Your task to perform on an android device: Go to ESPN.com Image 0: 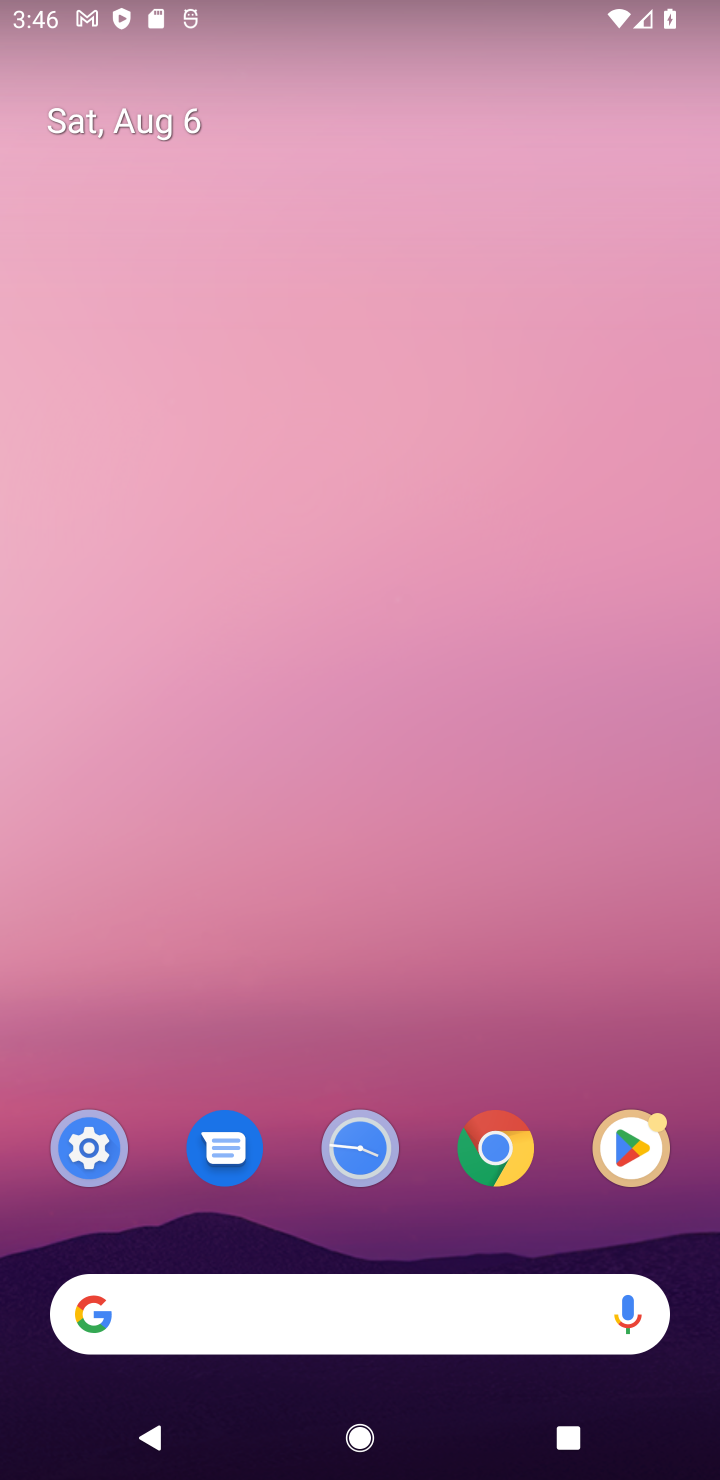
Step 0: drag from (301, 1218) to (512, 229)
Your task to perform on an android device: Go to ESPN.com Image 1: 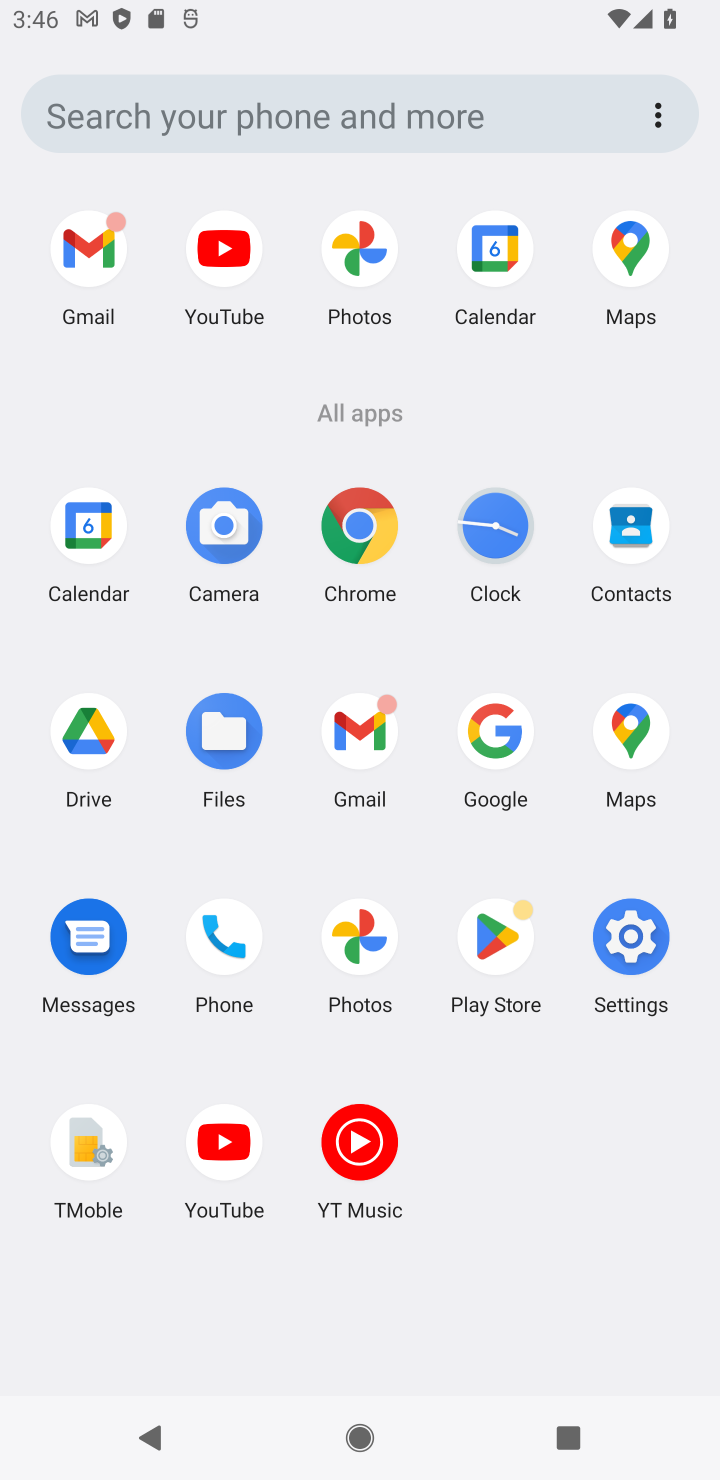
Step 1: click (352, 507)
Your task to perform on an android device: Go to ESPN.com Image 2: 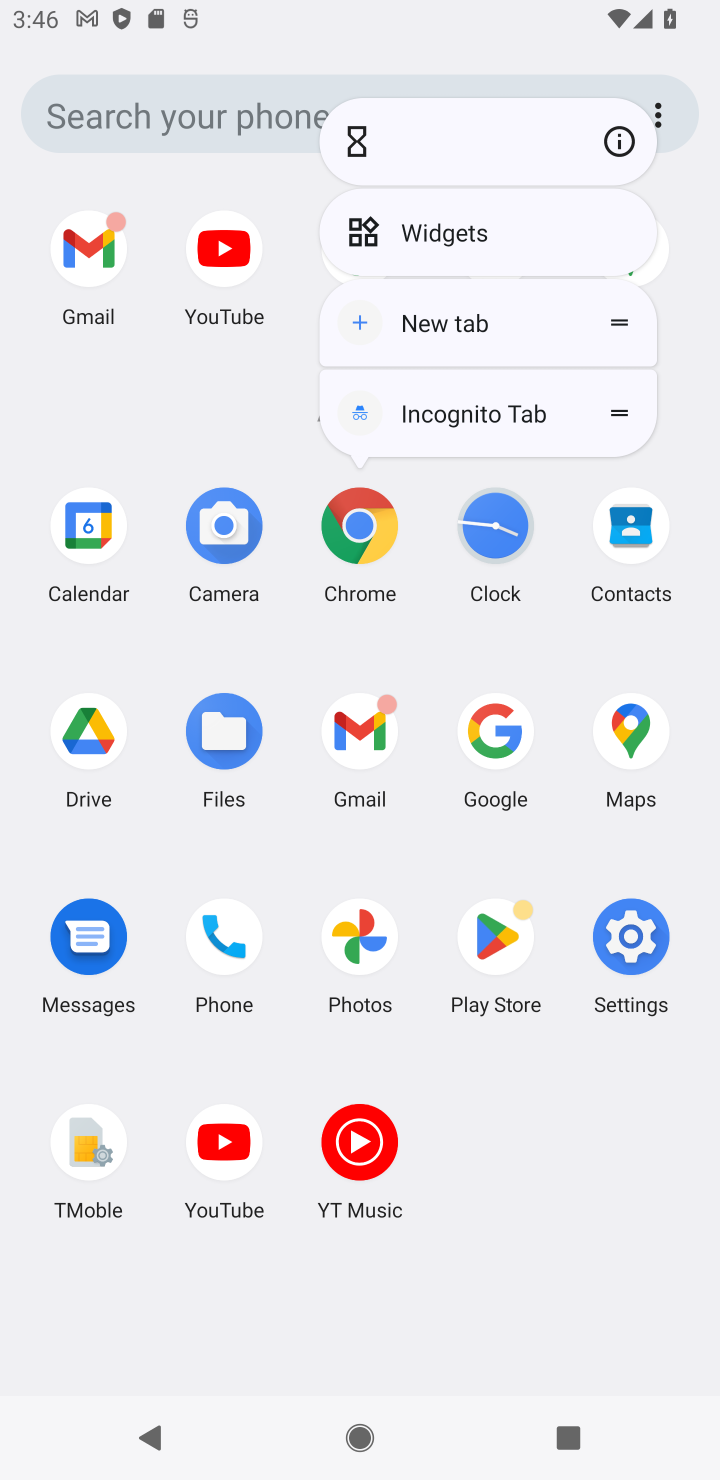
Step 2: click (626, 130)
Your task to perform on an android device: Go to ESPN.com Image 3: 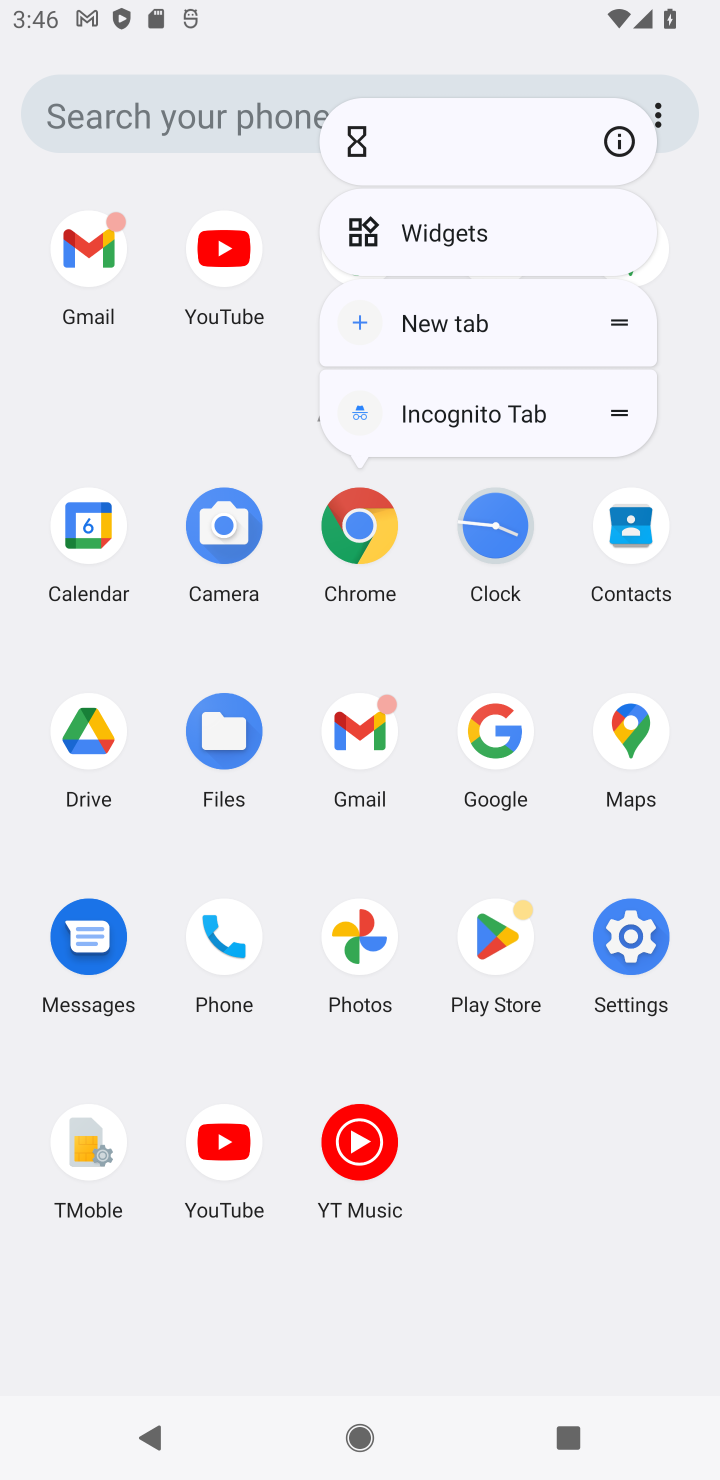
Step 3: click (608, 142)
Your task to perform on an android device: Go to ESPN.com Image 4: 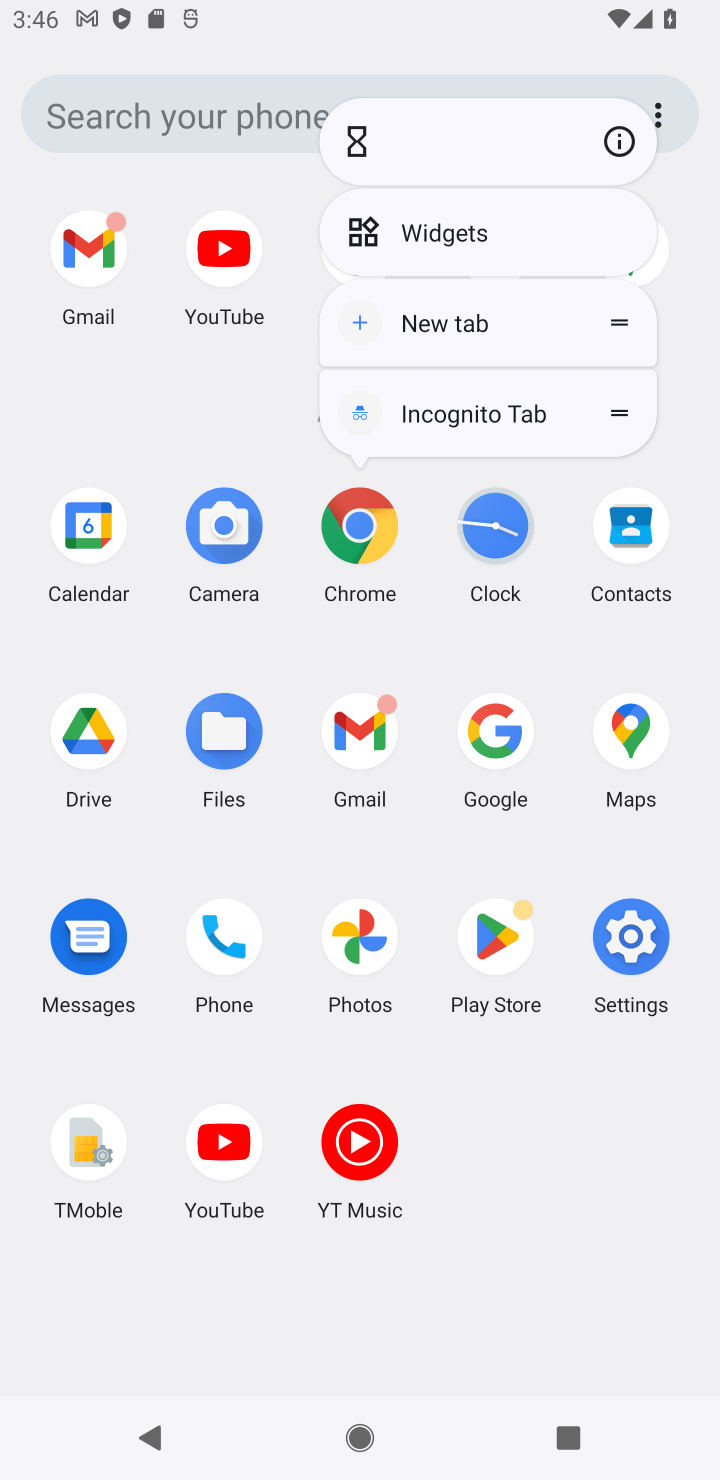
Step 4: click (606, 144)
Your task to perform on an android device: Go to ESPN.com Image 5: 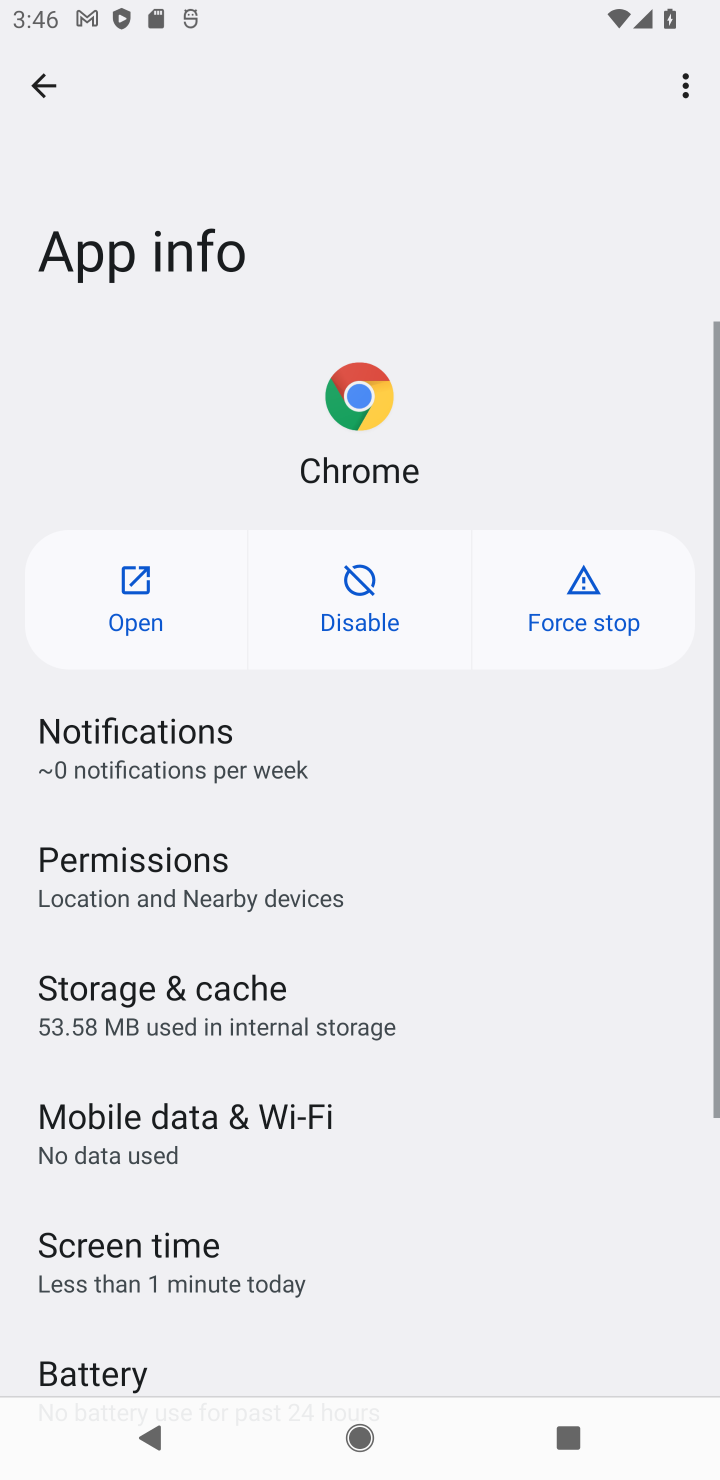
Step 5: click (119, 610)
Your task to perform on an android device: Go to ESPN.com Image 6: 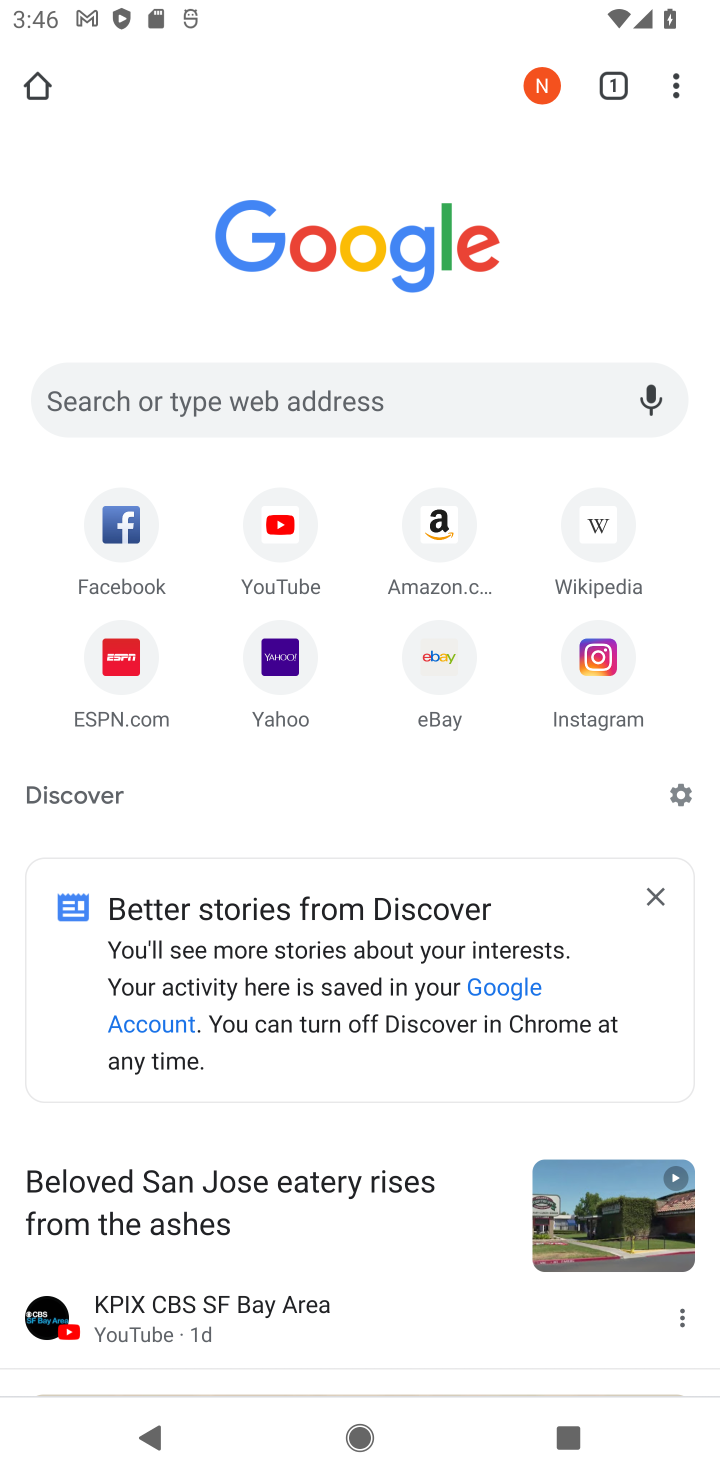
Step 6: click (139, 659)
Your task to perform on an android device: Go to ESPN.com Image 7: 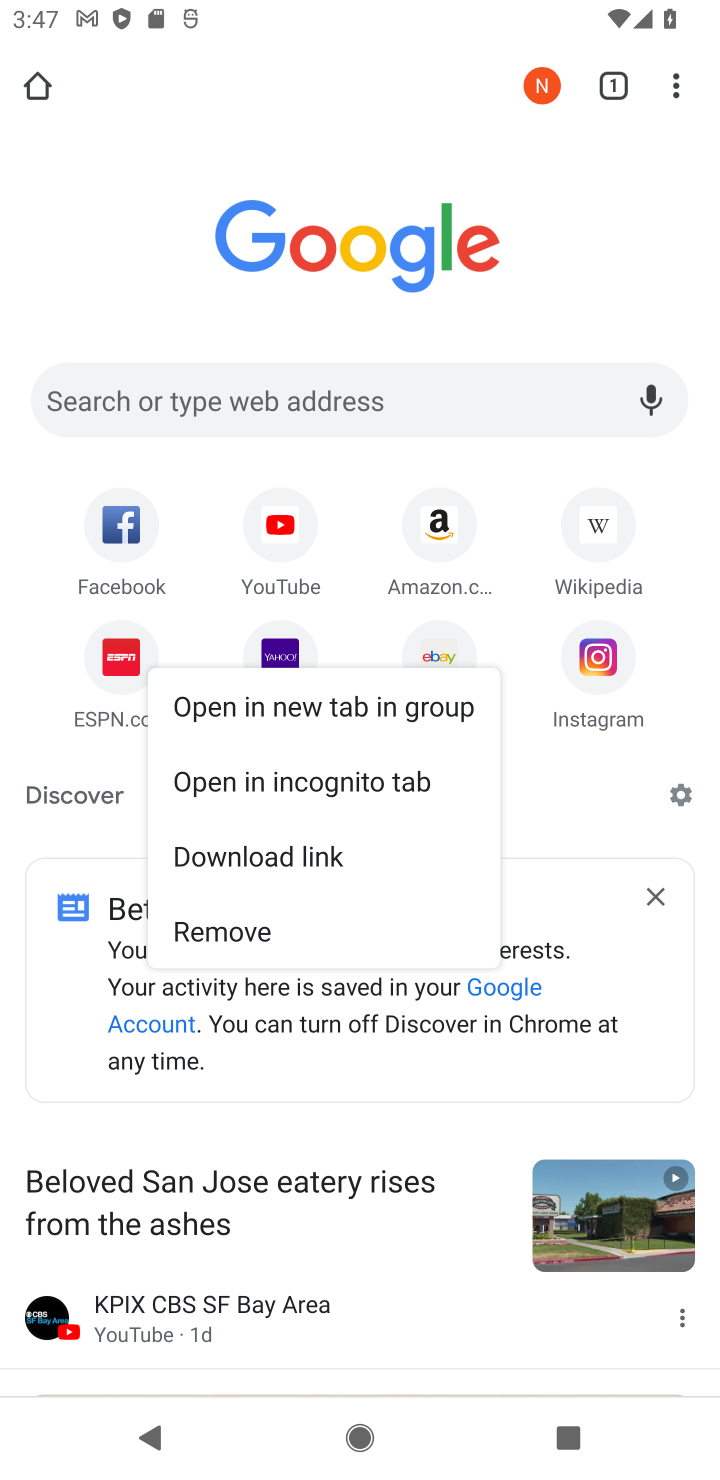
Step 7: click (678, 86)
Your task to perform on an android device: Go to ESPN.com Image 8: 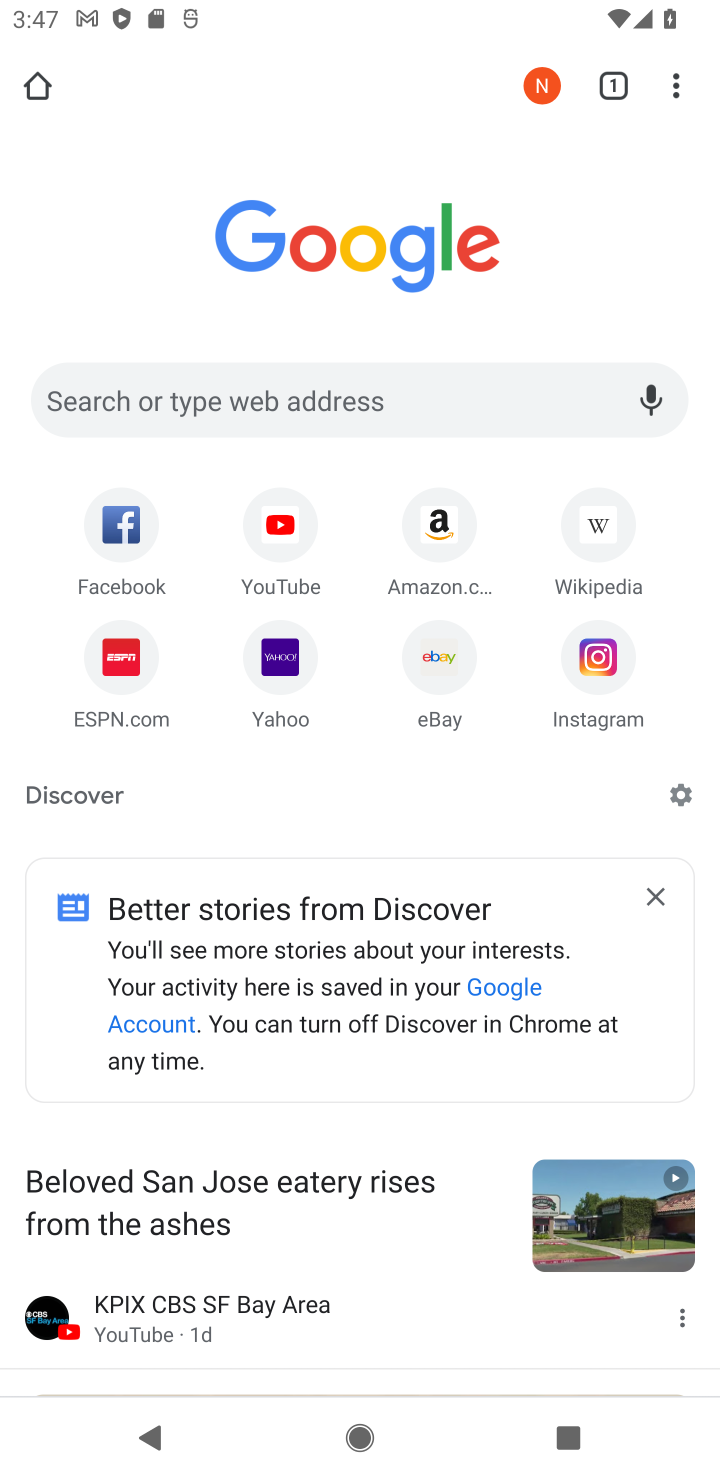
Step 8: click (651, 81)
Your task to perform on an android device: Go to ESPN.com Image 9: 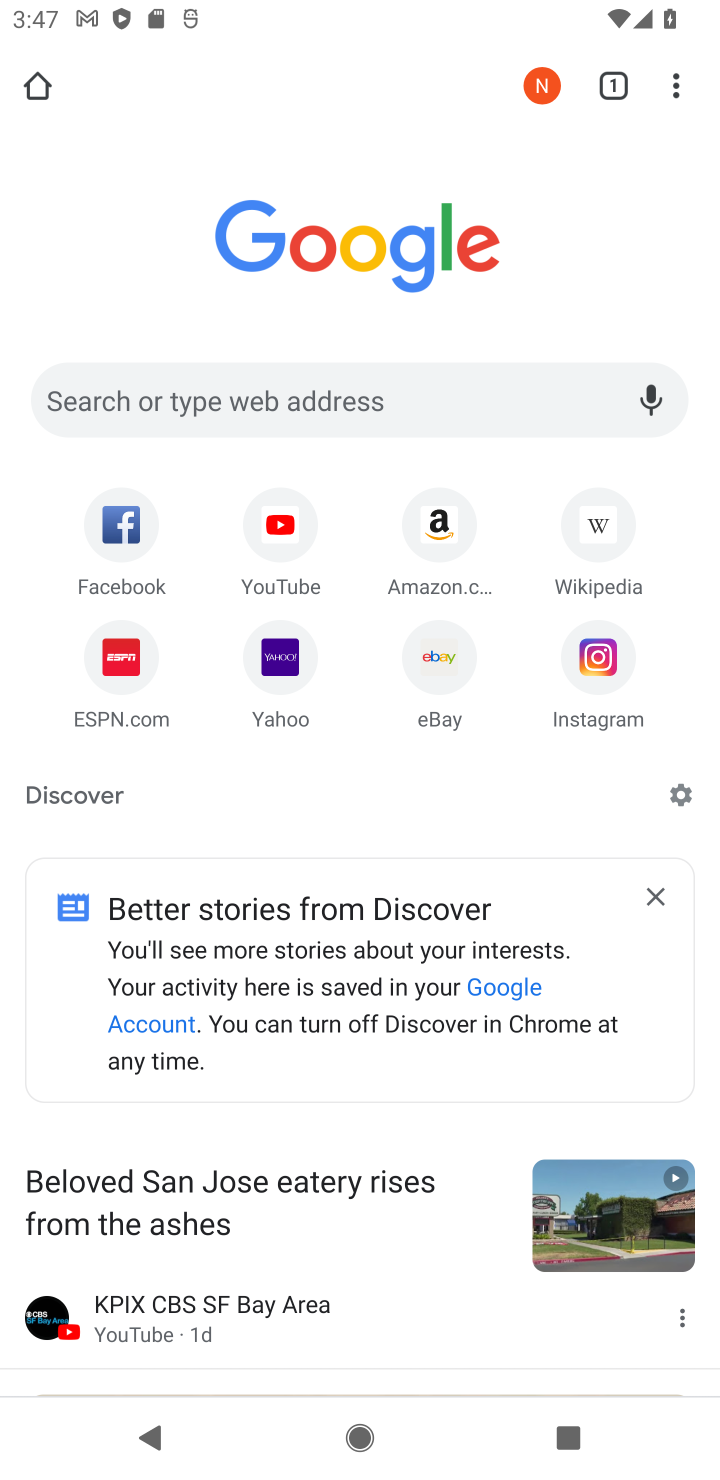
Step 9: click (687, 83)
Your task to perform on an android device: Go to ESPN.com Image 10: 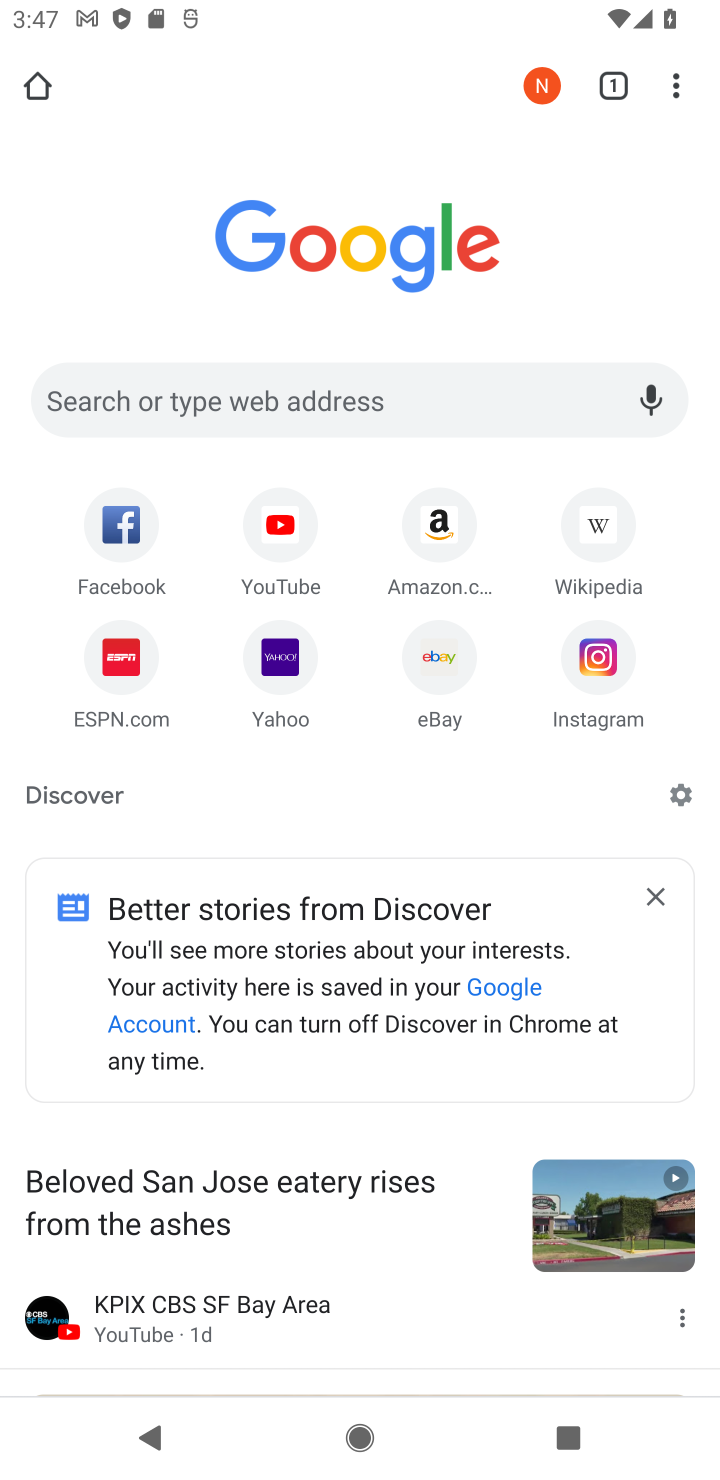
Step 10: drag from (674, 90) to (443, 728)
Your task to perform on an android device: Go to ESPN.com Image 11: 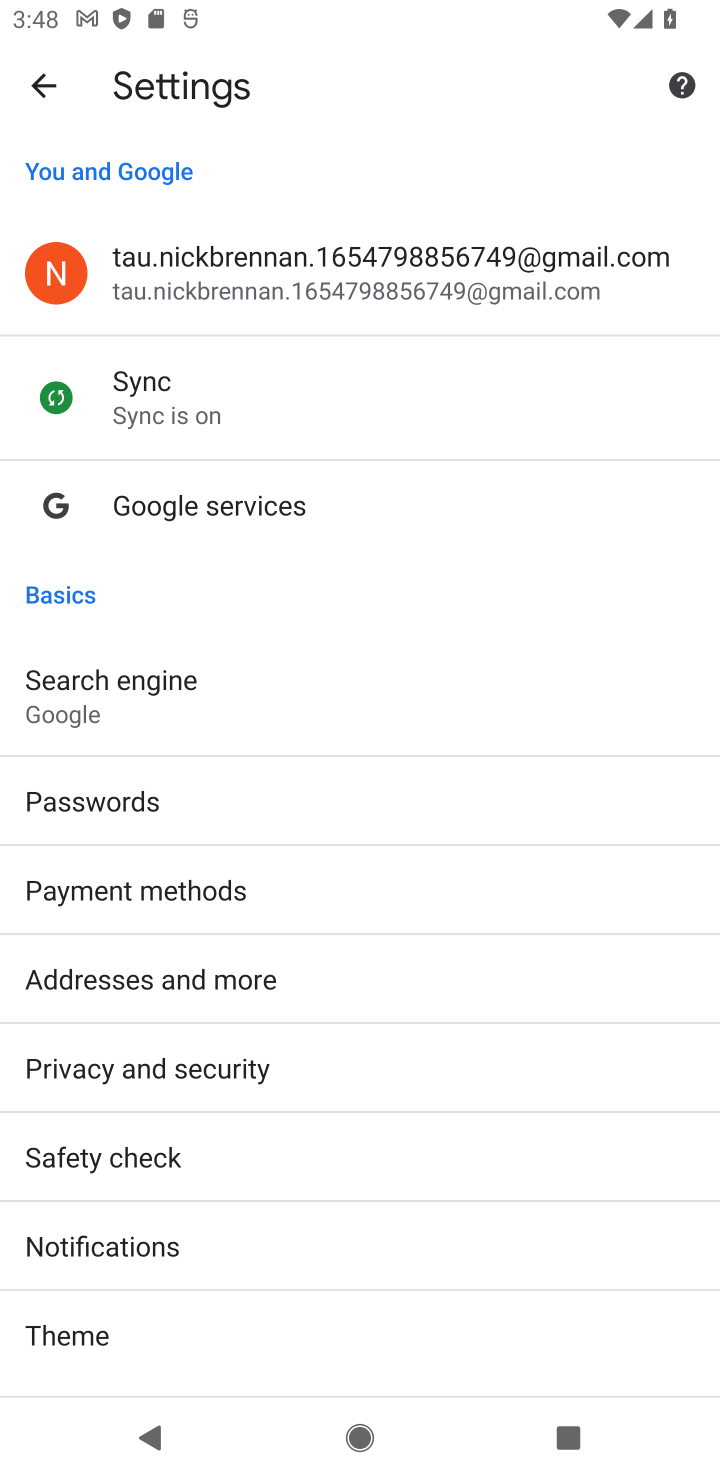
Step 11: drag from (344, 737) to (413, 277)
Your task to perform on an android device: Go to ESPN.com Image 12: 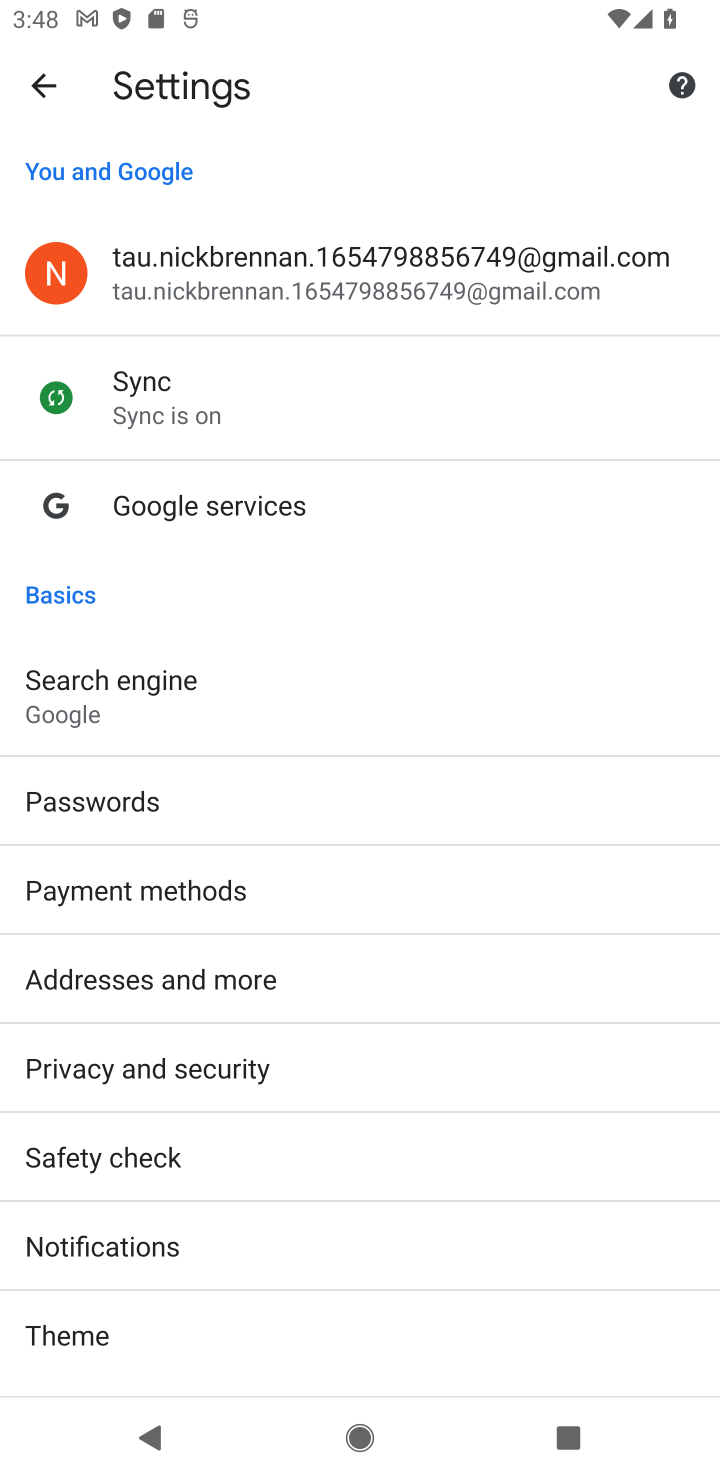
Step 12: drag from (288, 427) to (408, 353)
Your task to perform on an android device: Go to ESPN.com Image 13: 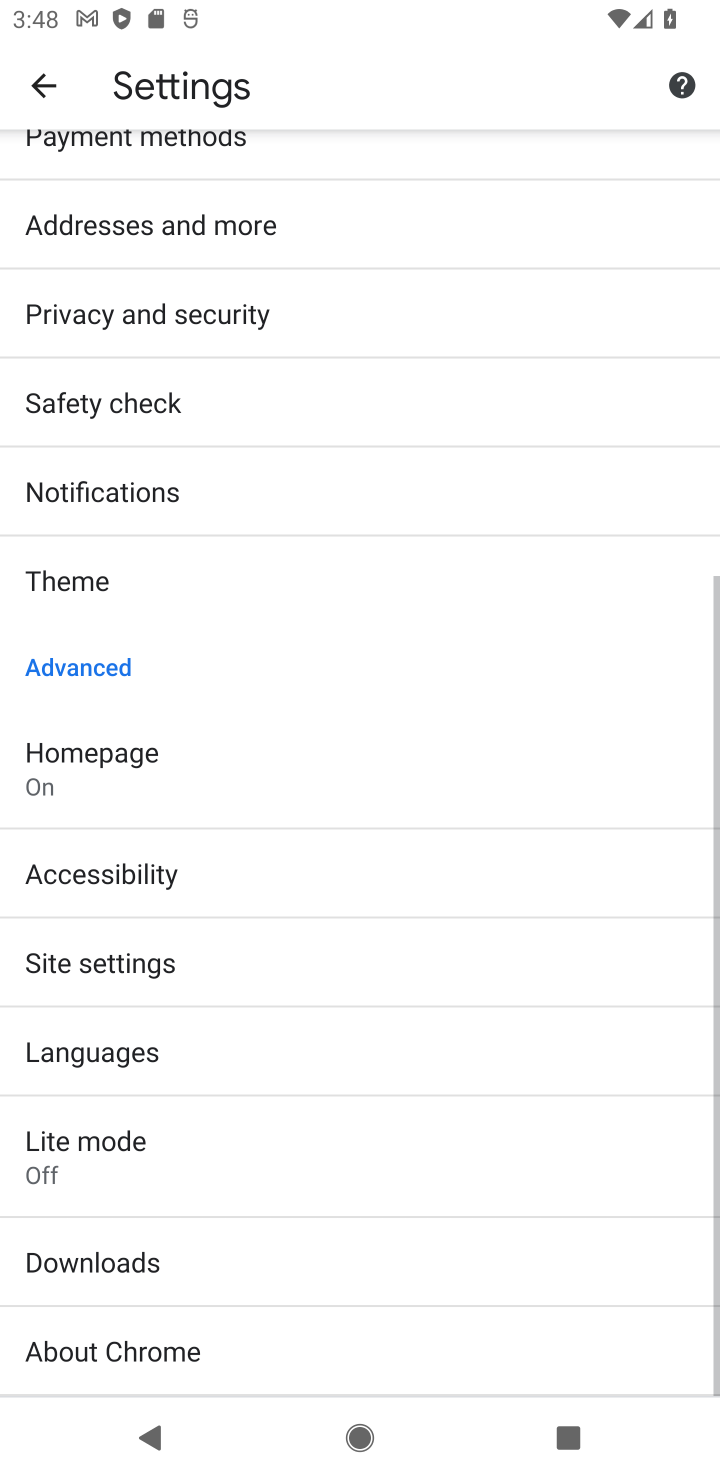
Step 13: drag from (342, 876) to (377, 355)
Your task to perform on an android device: Go to ESPN.com Image 14: 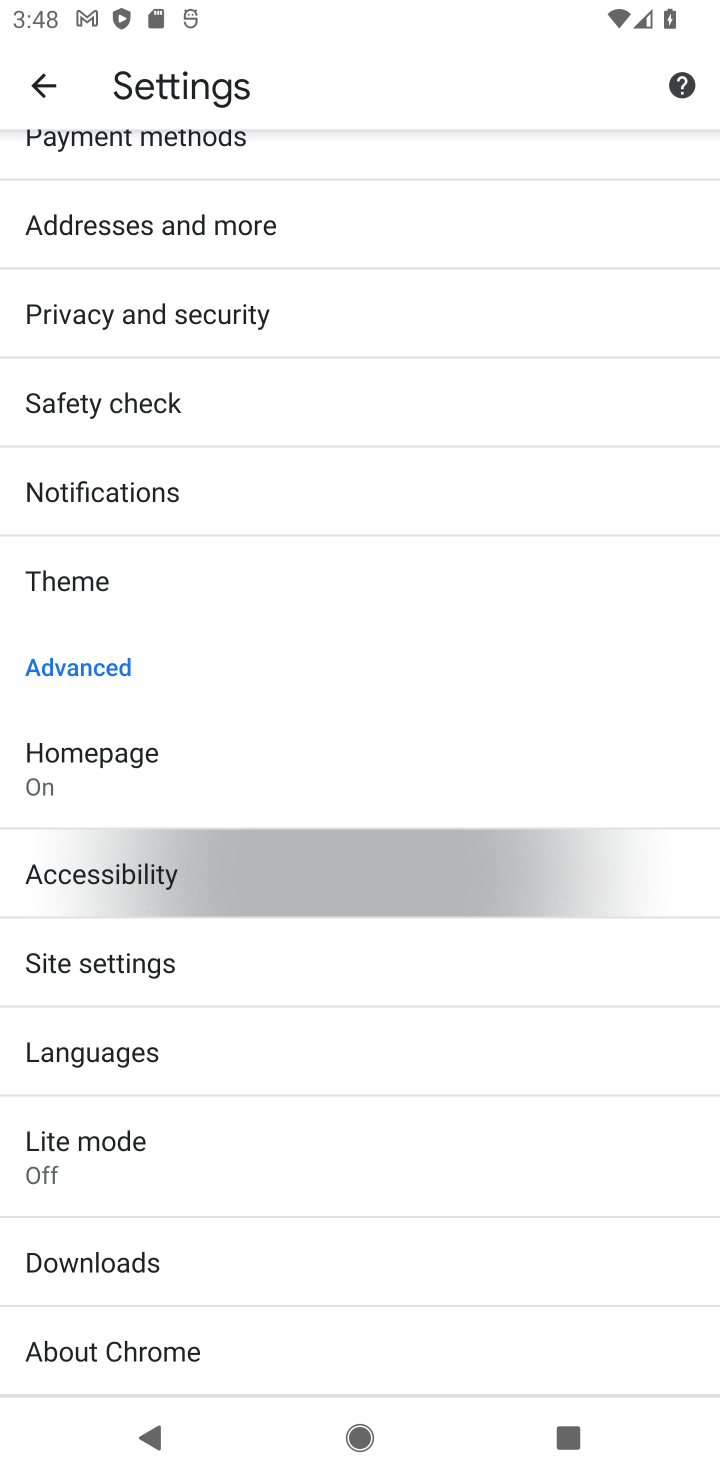
Step 14: drag from (318, 421) to (534, 1458)
Your task to perform on an android device: Go to ESPN.com Image 15: 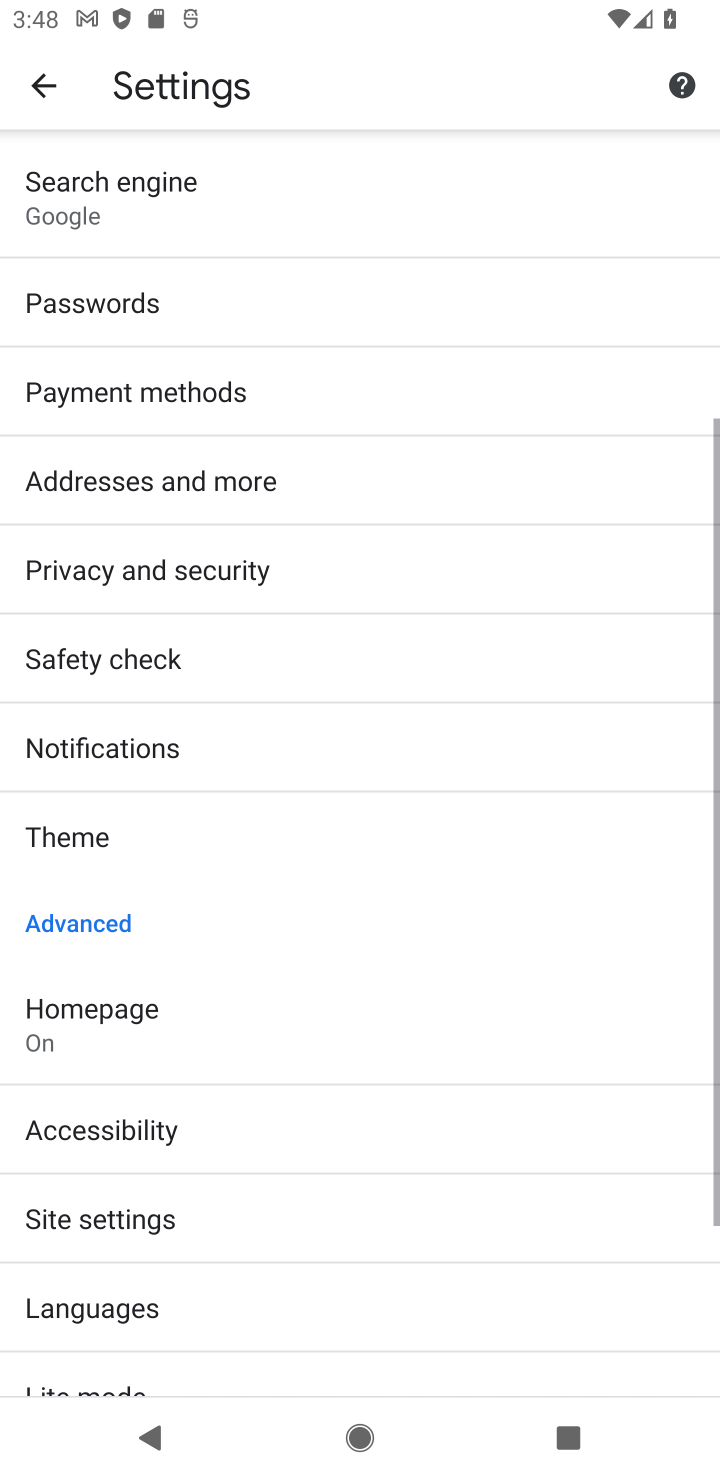
Step 15: drag from (441, 663) to (431, 1463)
Your task to perform on an android device: Go to ESPN.com Image 16: 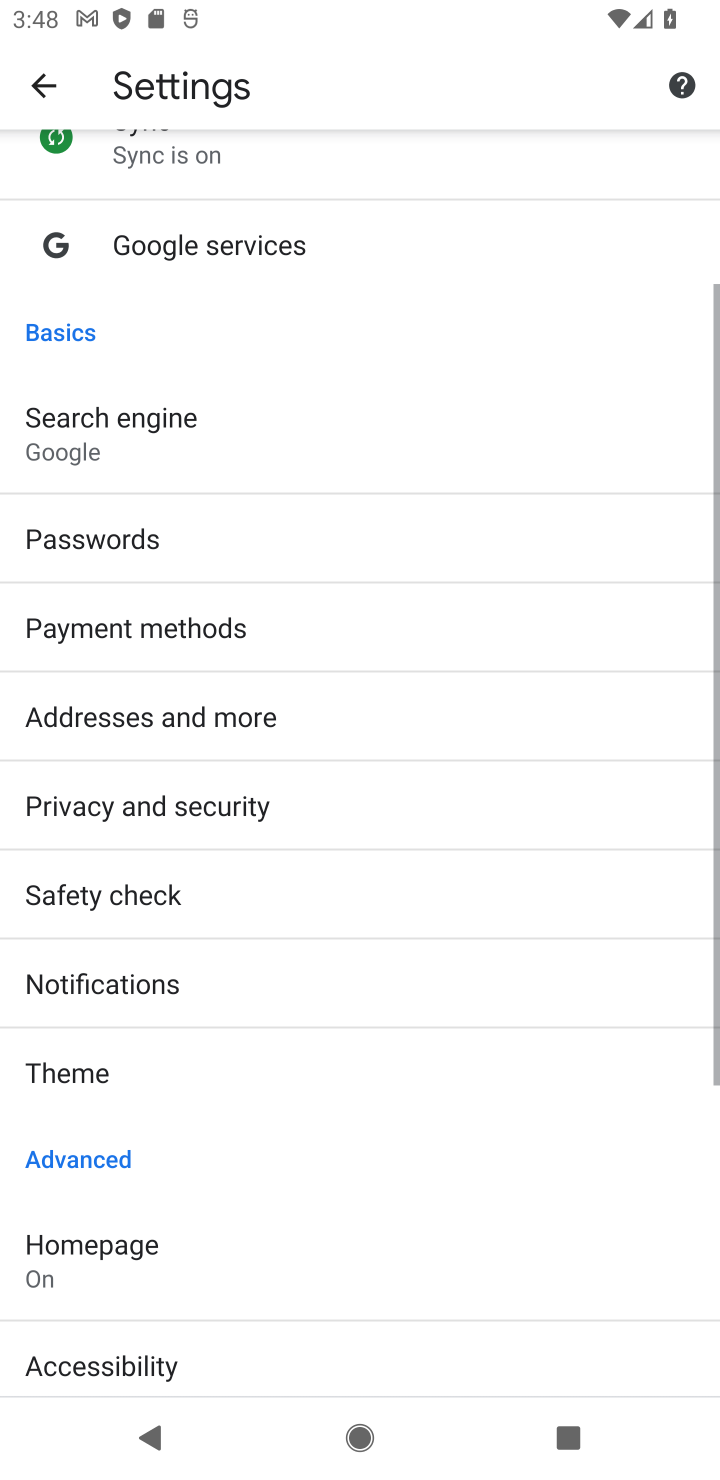
Step 16: drag from (180, 542) to (231, 1383)
Your task to perform on an android device: Go to ESPN.com Image 17: 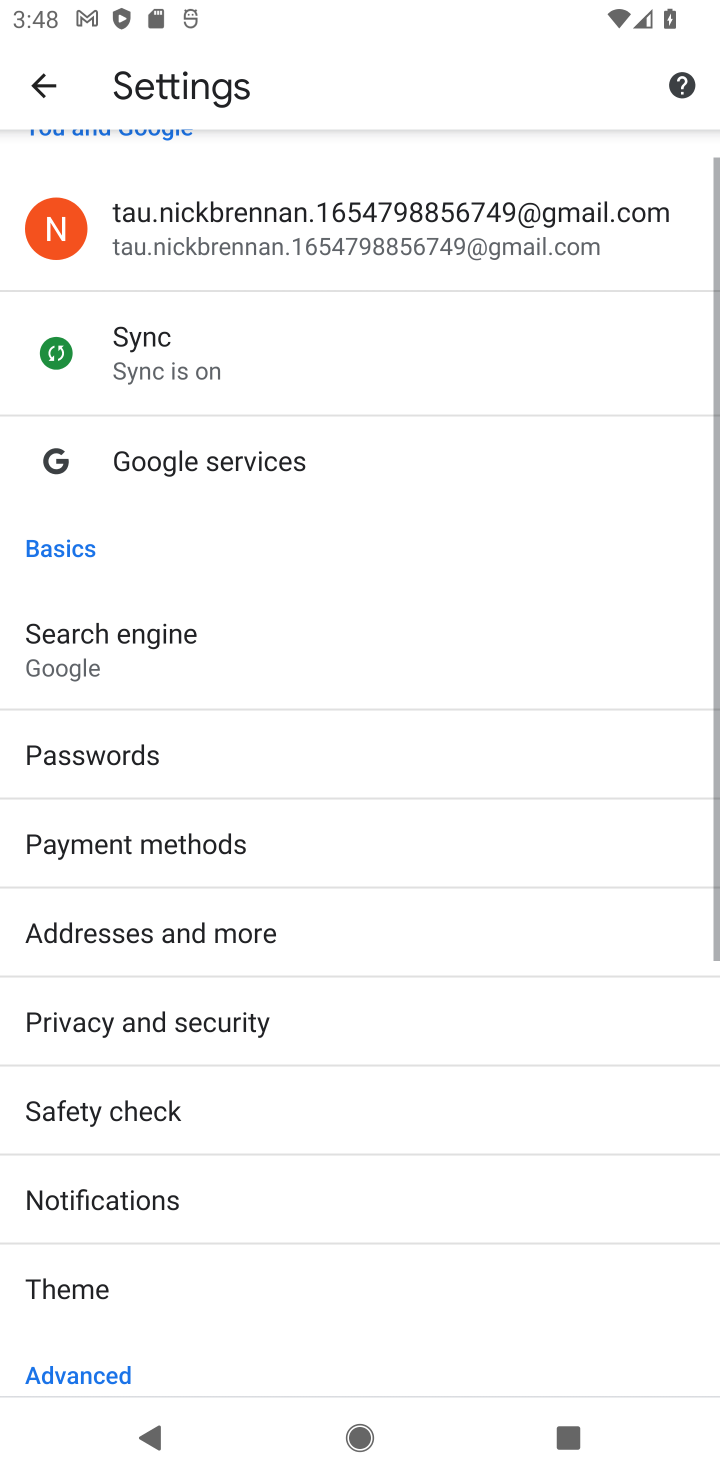
Step 17: drag from (232, 377) to (448, 1275)
Your task to perform on an android device: Go to ESPN.com Image 18: 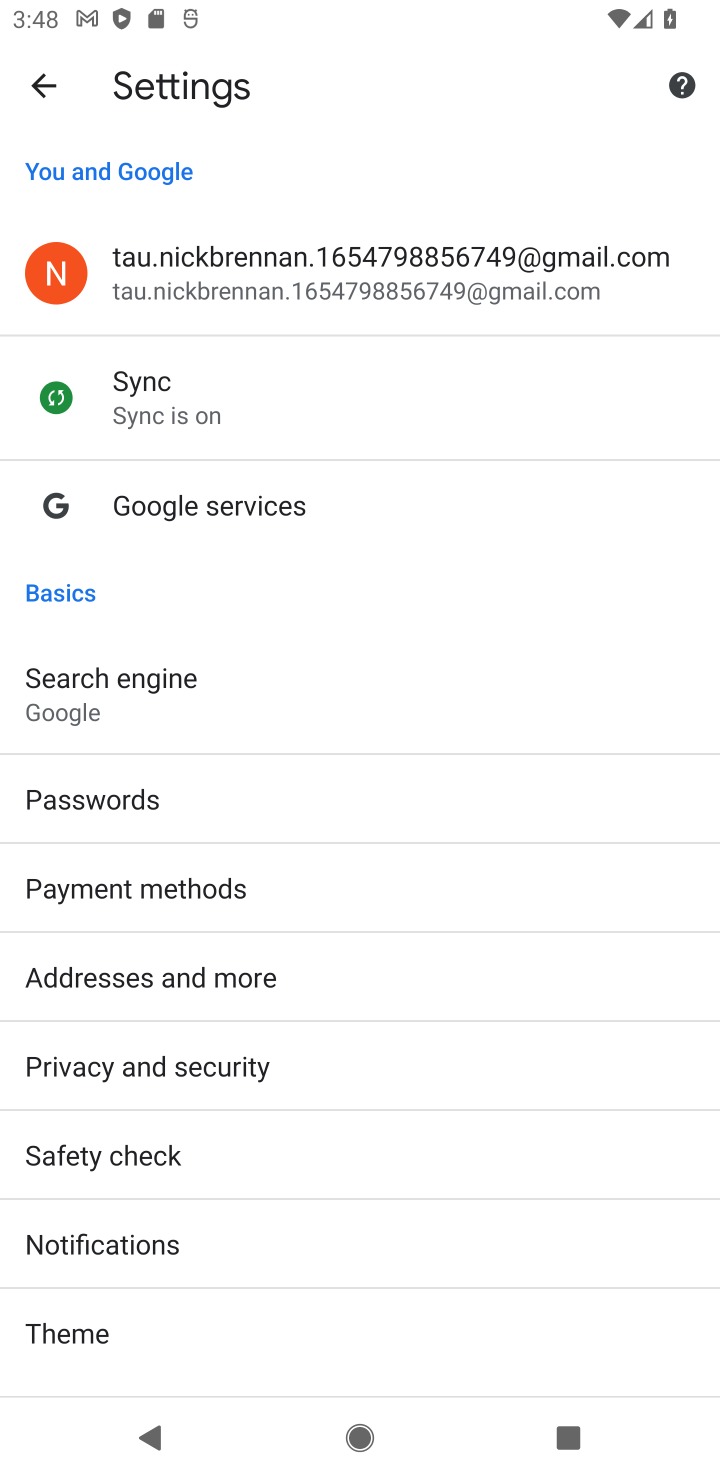
Step 18: drag from (341, 672) to (458, 973)
Your task to perform on an android device: Go to ESPN.com Image 19: 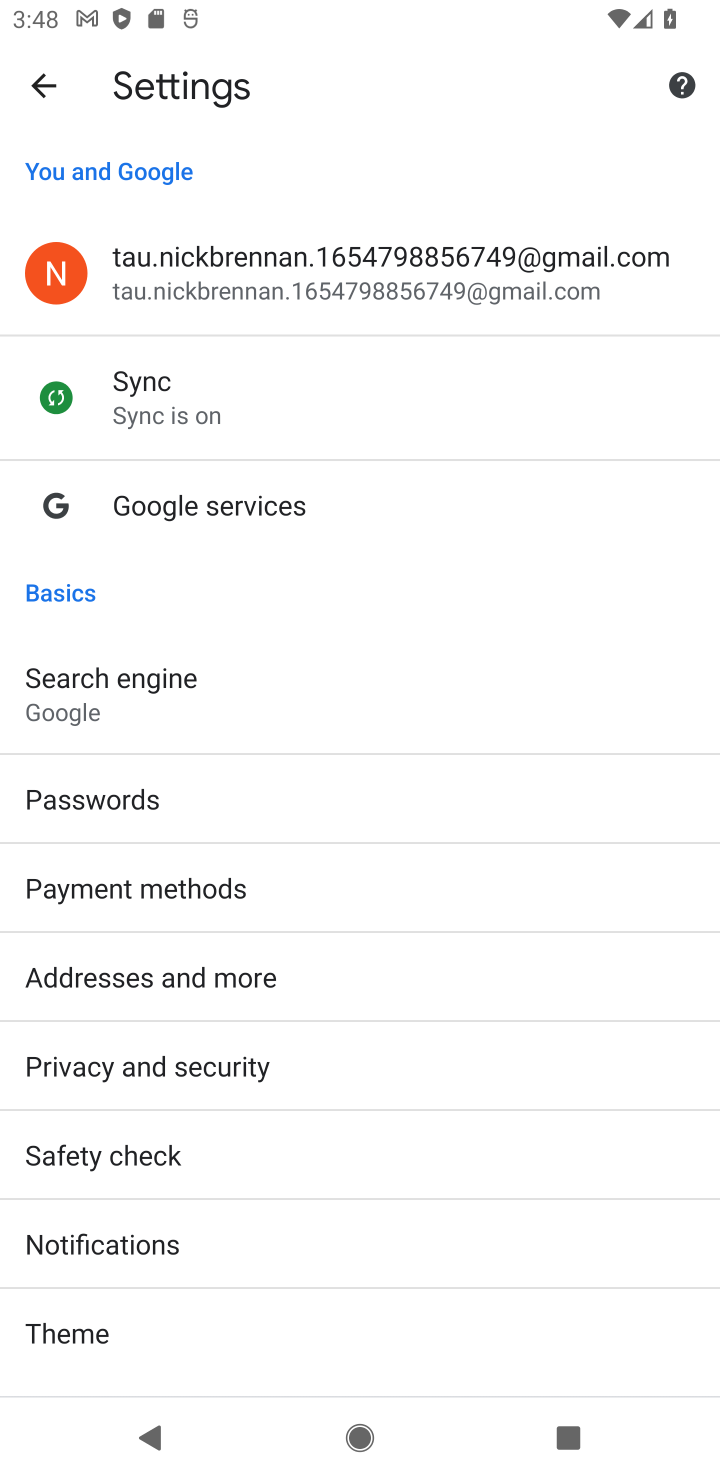
Step 19: drag from (413, 651) to (509, 1137)
Your task to perform on an android device: Go to ESPN.com Image 20: 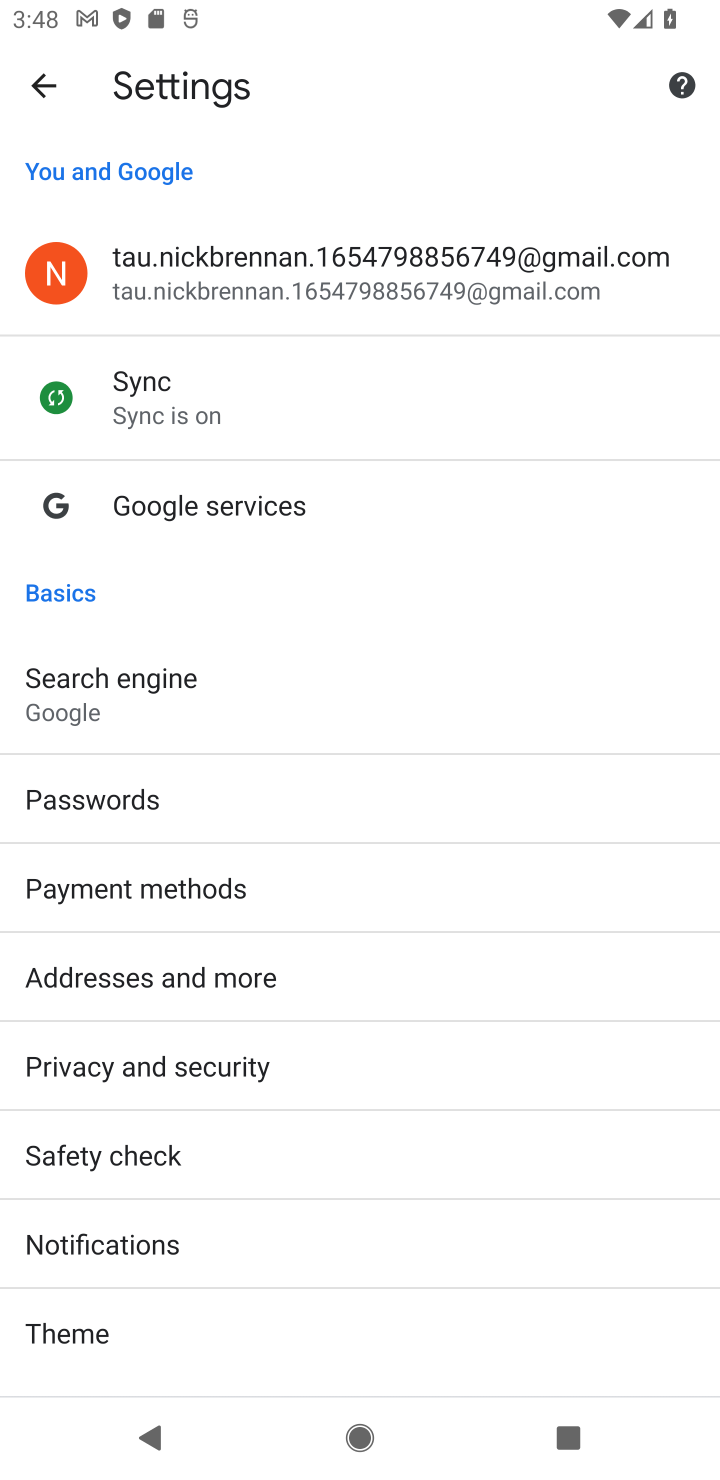
Step 20: click (43, 83)
Your task to perform on an android device: Go to ESPN.com Image 21: 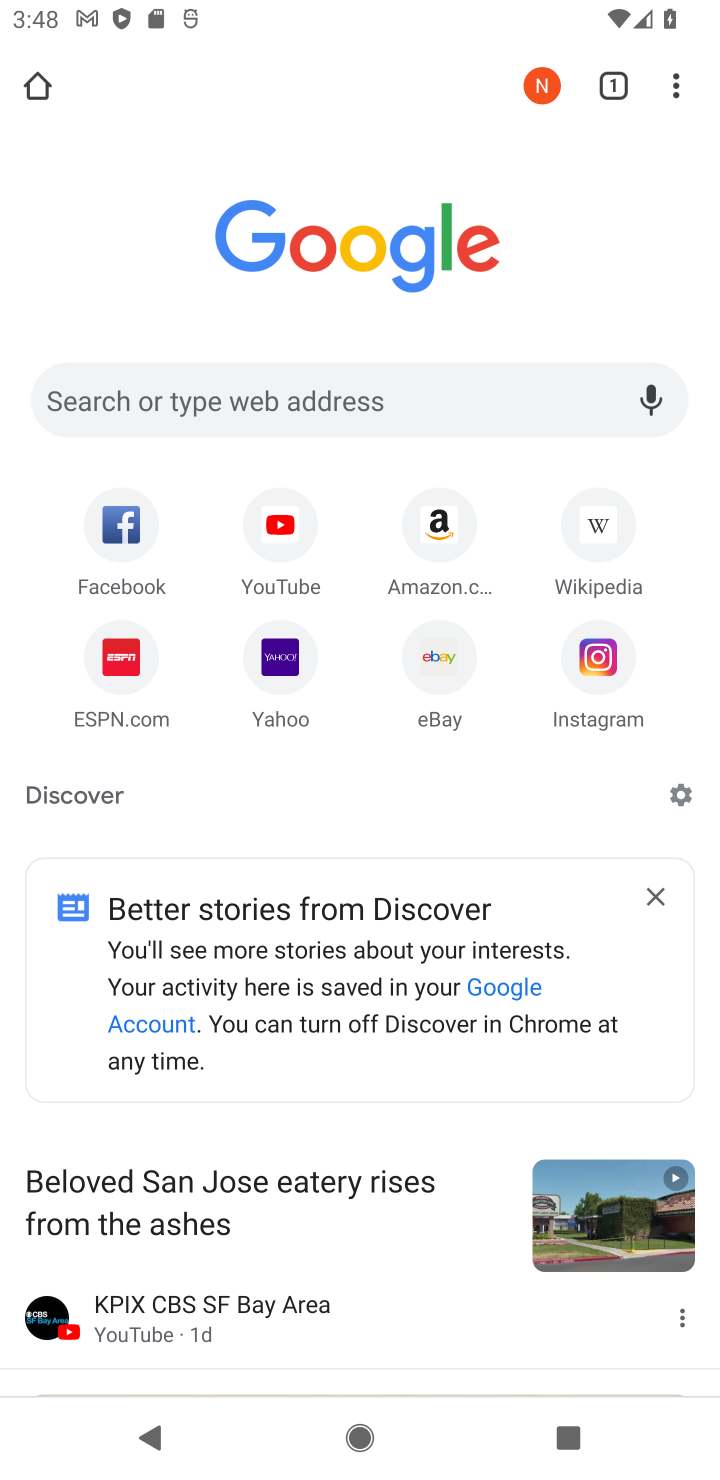
Step 21: click (128, 670)
Your task to perform on an android device: Go to ESPN.com Image 22: 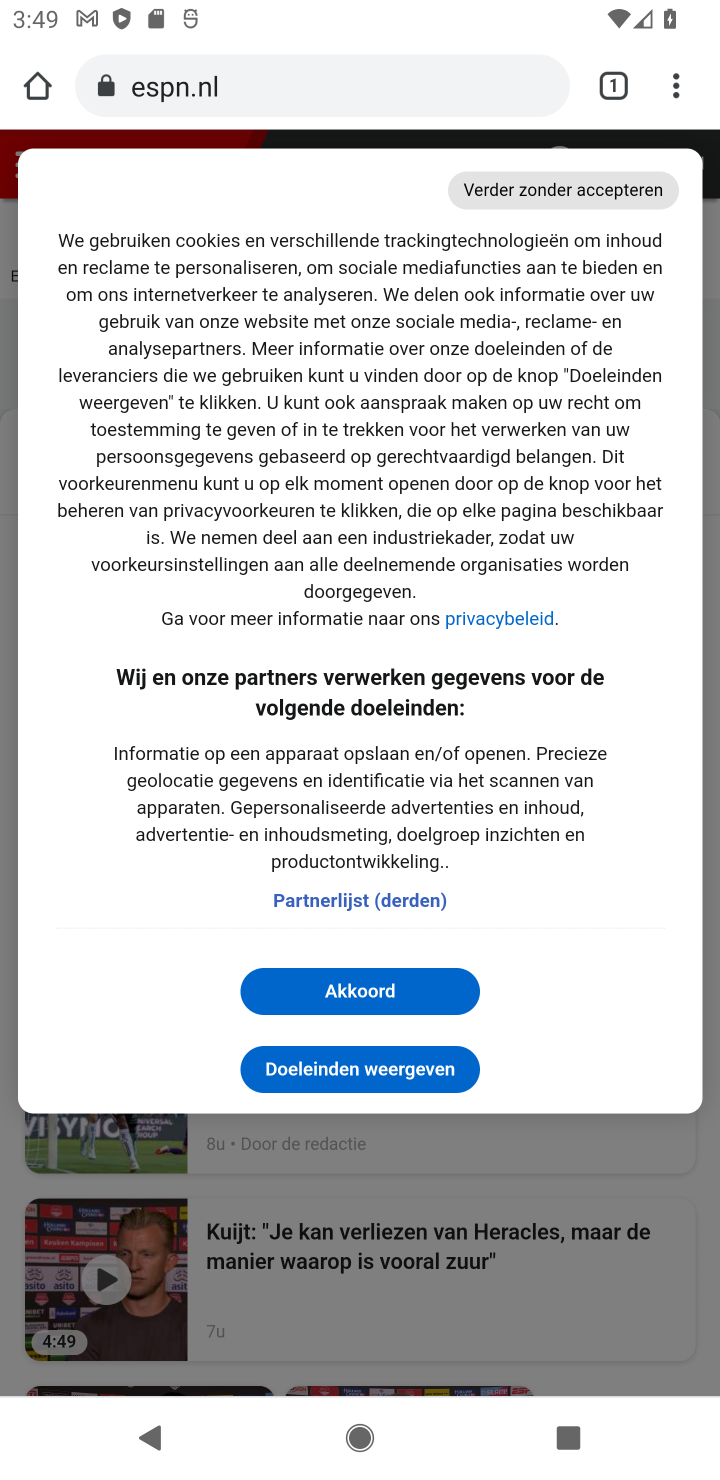
Step 22: task complete